Your task to perform on an android device: Open Youtube and go to "Your channel" Image 0: 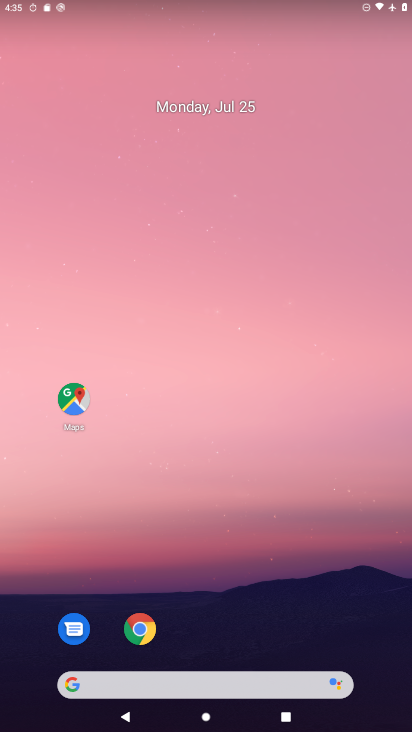
Step 0: drag from (299, 557) to (287, 65)
Your task to perform on an android device: Open Youtube and go to "Your channel" Image 1: 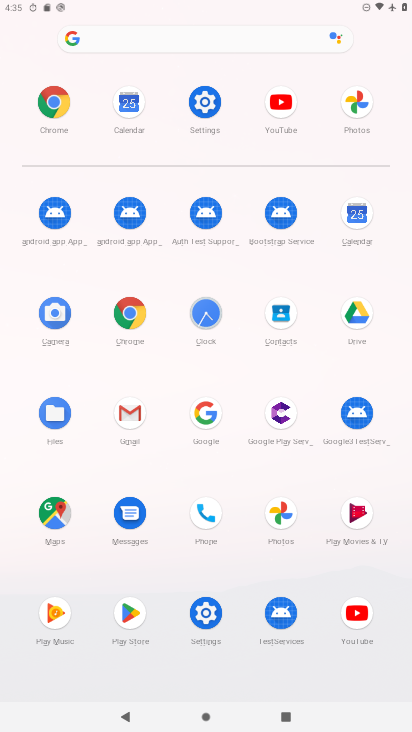
Step 1: click (359, 601)
Your task to perform on an android device: Open Youtube and go to "Your channel" Image 2: 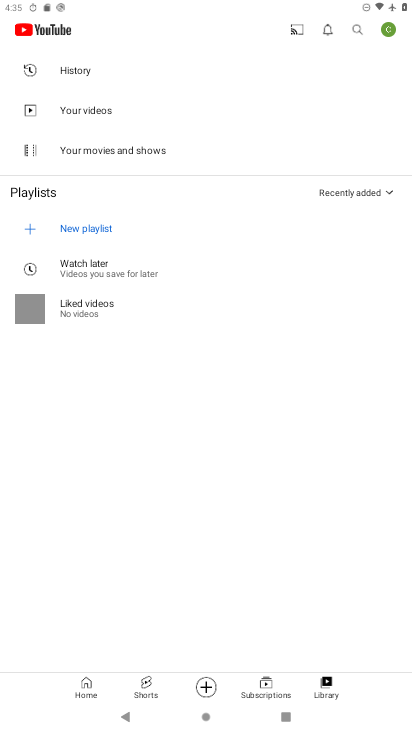
Step 2: press back button
Your task to perform on an android device: Open Youtube and go to "Your channel" Image 3: 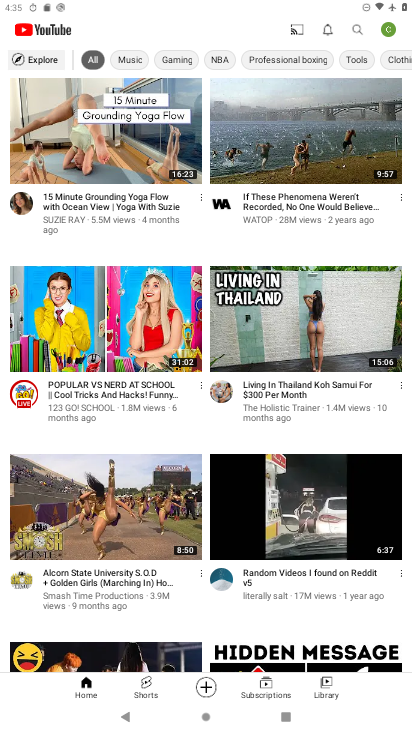
Step 3: click (386, 25)
Your task to perform on an android device: Open Youtube and go to "Your channel" Image 4: 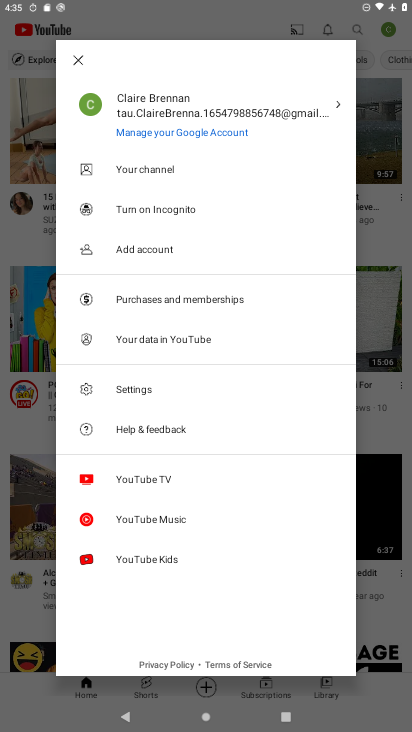
Step 4: click (145, 171)
Your task to perform on an android device: Open Youtube and go to "Your channel" Image 5: 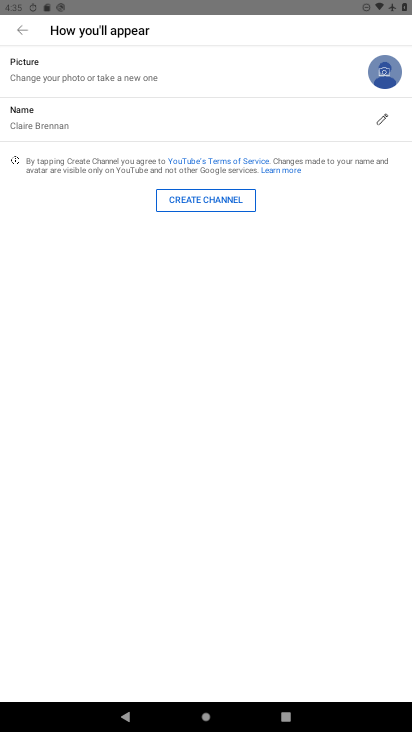
Step 5: task complete